Your task to perform on an android device: Open the web browser Image 0: 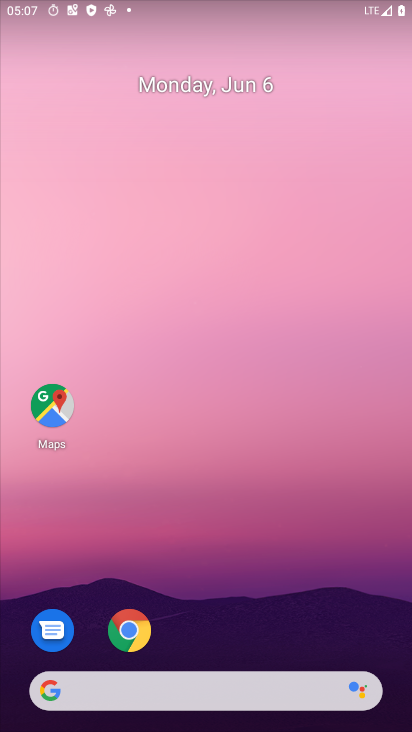
Step 0: drag from (283, 630) to (249, 64)
Your task to perform on an android device: Open the web browser Image 1: 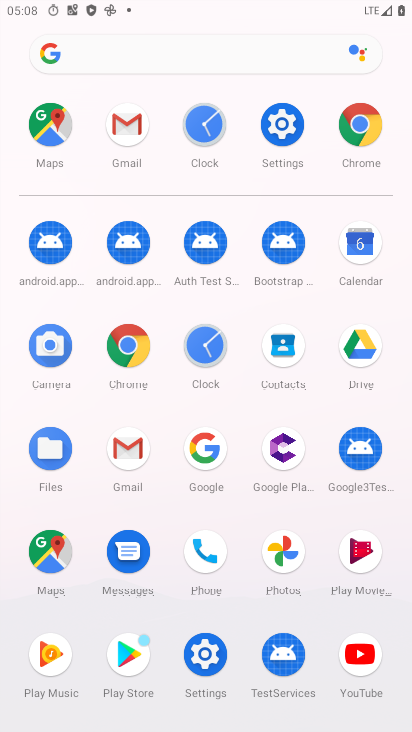
Step 1: click (122, 353)
Your task to perform on an android device: Open the web browser Image 2: 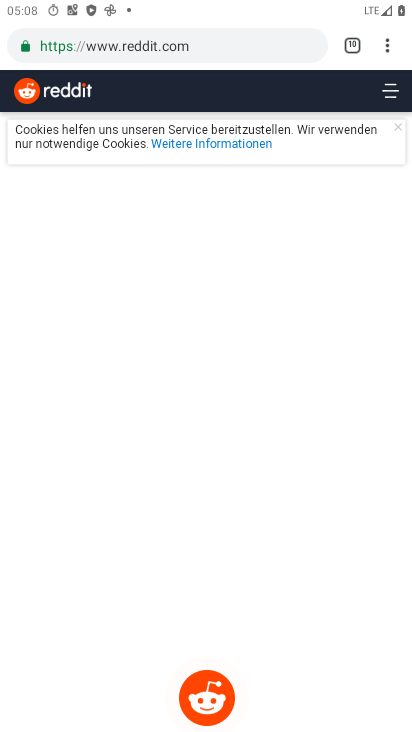
Step 2: drag from (384, 43) to (84, 33)
Your task to perform on an android device: Open the web browser Image 3: 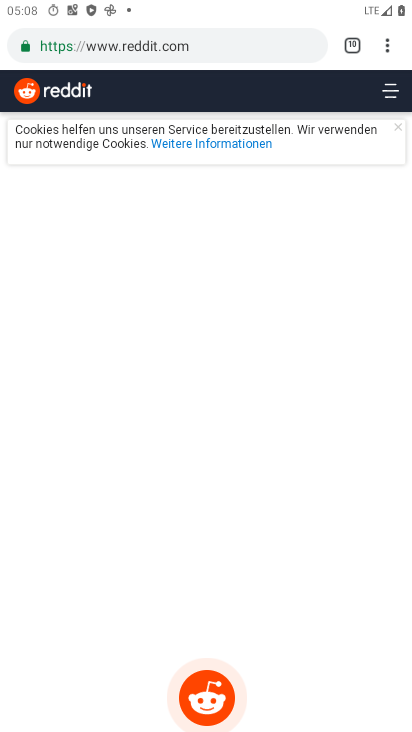
Step 3: click (91, 37)
Your task to perform on an android device: Open the web browser Image 4: 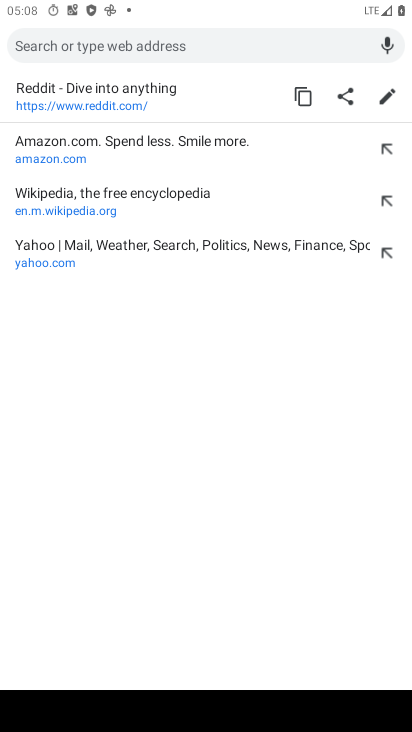
Step 4: type "Open the web browser"
Your task to perform on an android device: Open the web browser Image 5: 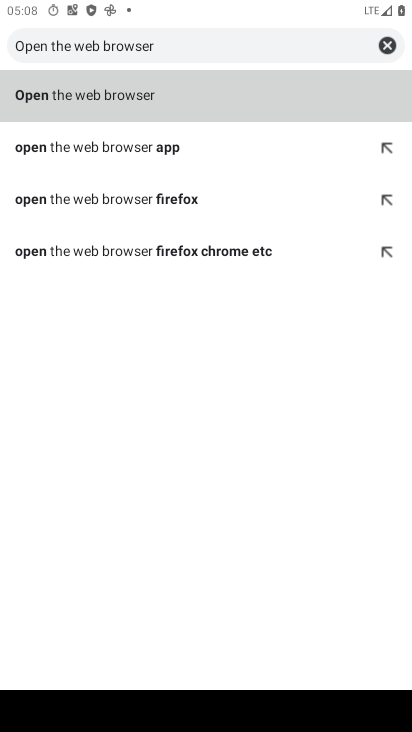
Step 5: click (87, 93)
Your task to perform on an android device: Open the web browser Image 6: 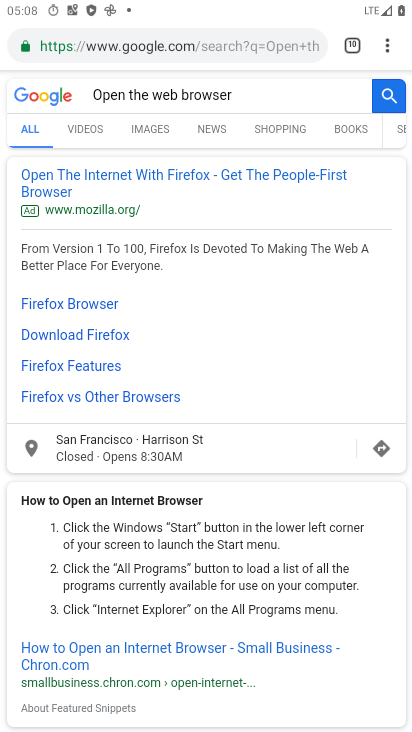
Step 6: click (163, 175)
Your task to perform on an android device: Open the web browser Image 7: 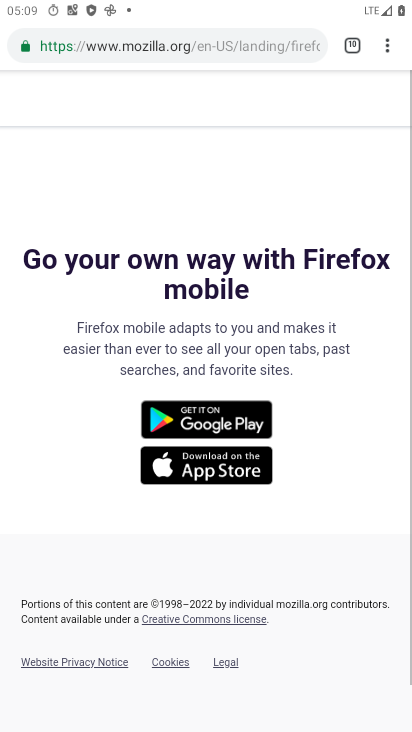
Step 7: task complete